Your task to perform on an android device: change the upload size in google photos Image 0: 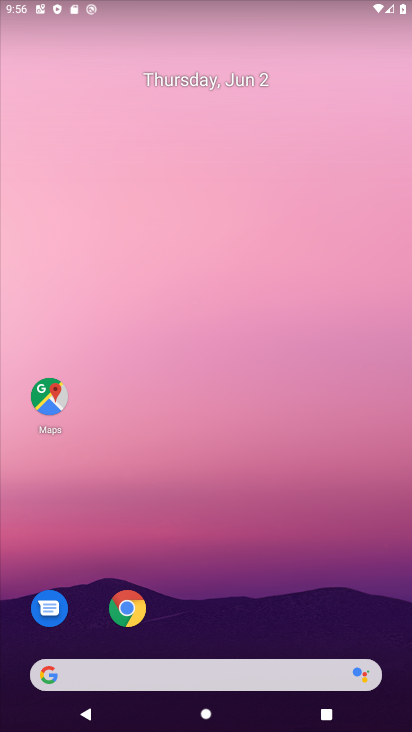
Step 0: drag from (197, 633) to (266, 143)
Your task to perform on an android device: change the upload size in google photos Image 1: 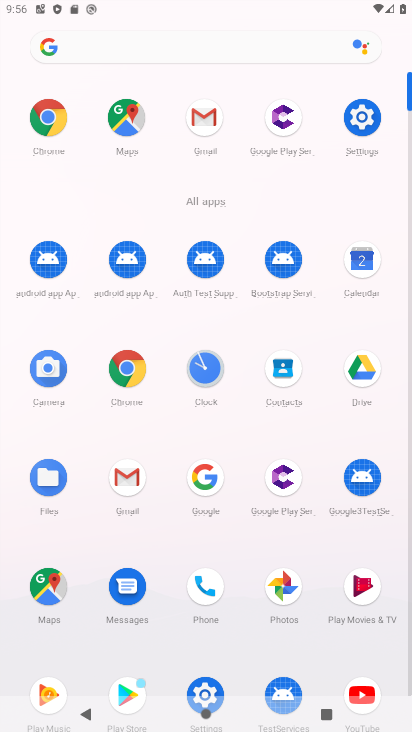
Step 1: click (278, 582)
Your task to perform on an android device: change the upload size in google photos Image 2: 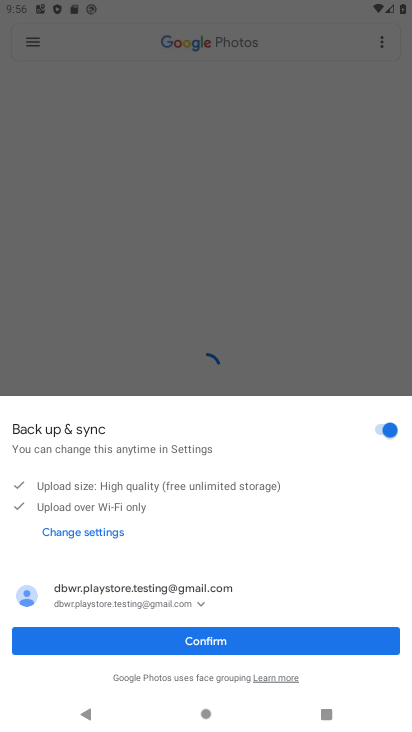
Step 2: click (214, 647)
Your task to perform on an android device: change the upload size in google photos Image 3: 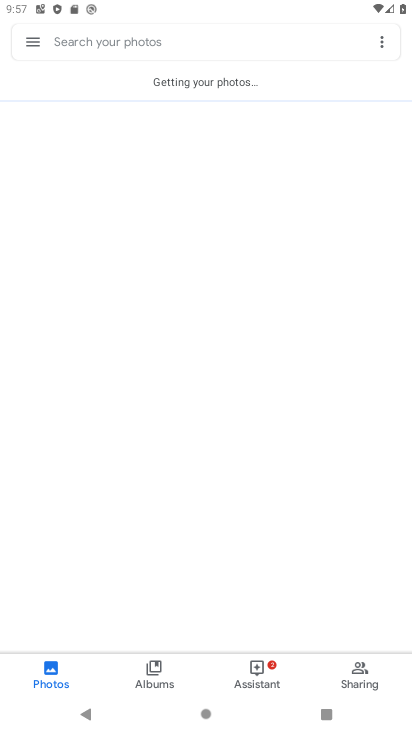
Step 3: click (38, 37)
Your task to perform on an android device: change the upload size in google photos Image 4: 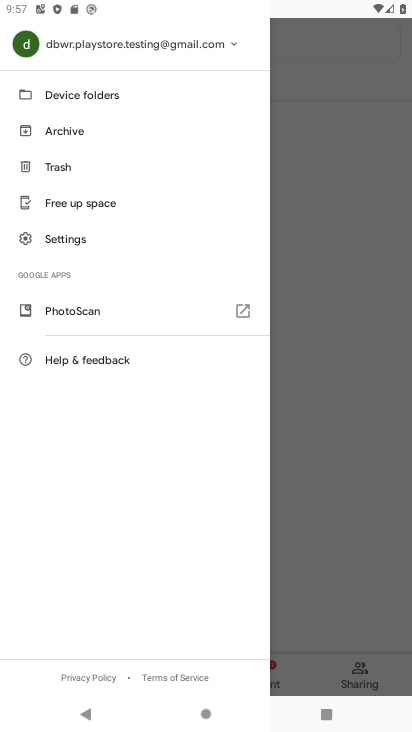
Step 4: click (118, 247)
Your task to perform on an android device: change the upload size in google photos Image 5: 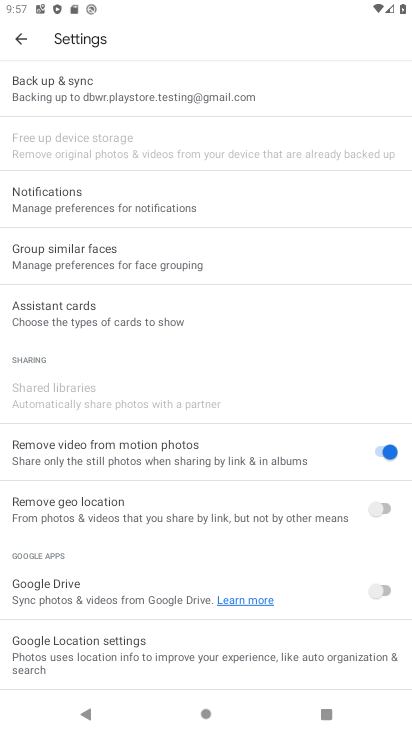
Step 5: click (142, 85)
Your task to perform on an android device: change the upload size in google photos Image 6: 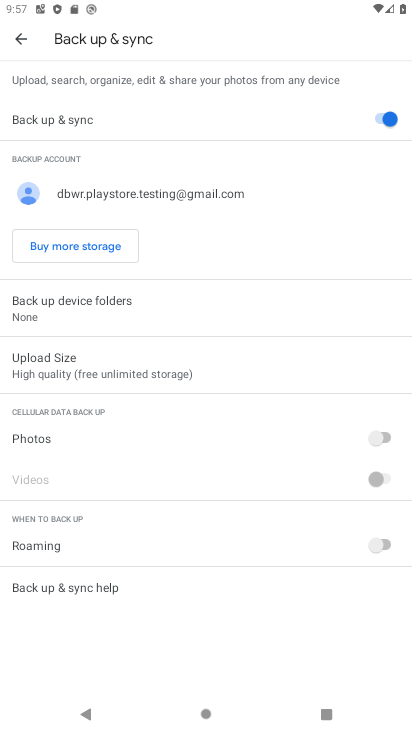
Step 6: click (115, 374)
Your task to perform on an android device: change the upload size in google photos Image 7: 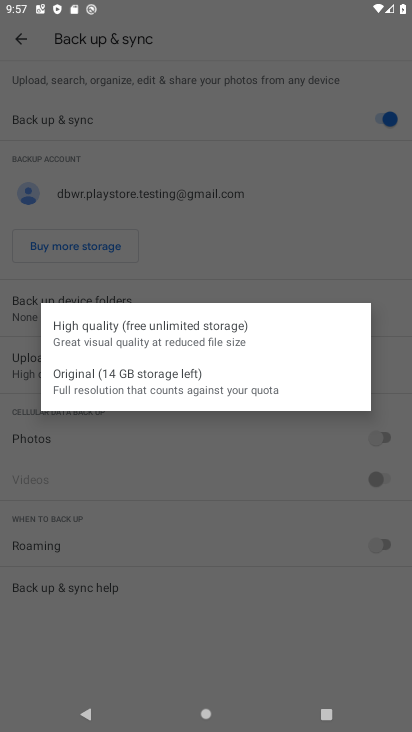
Step 7: click (128, 384)
Your task to perform on an android device: change the upload size in google photos Image 8: 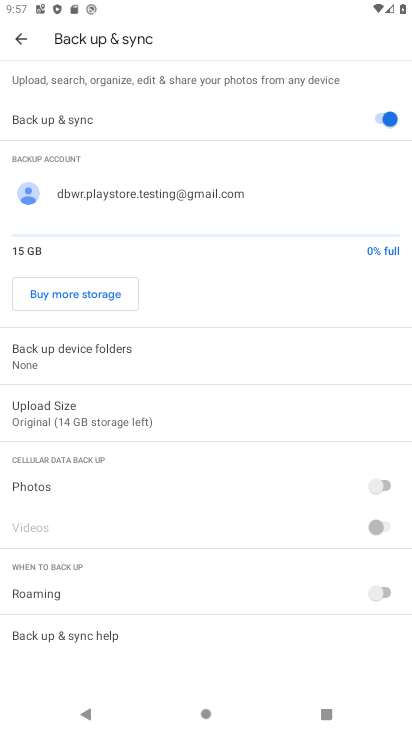
Step 8: task complete